Your task to perform on an android device: allow cookies in the chrome app Image 0: 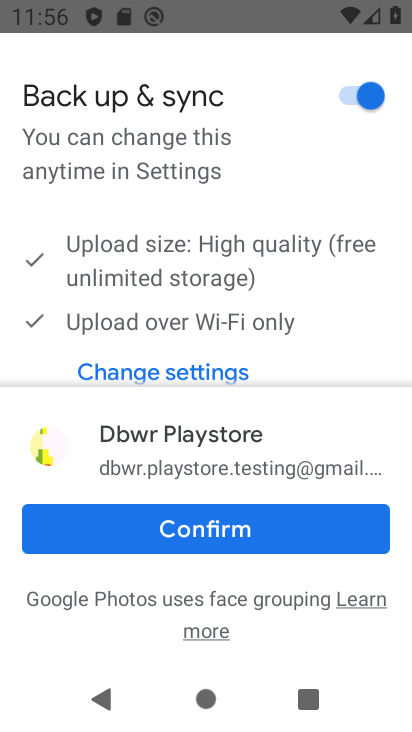
Step 0: press home button
Your task to perform on an android device: allow cookies in the chrome app Image 1: 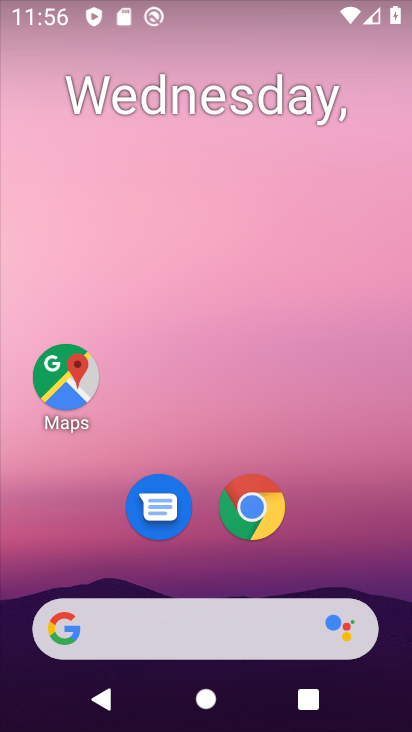
Step 1: click (259, 537)
Your task to perform on an android device: allow cookies in the chrome app Image 2: 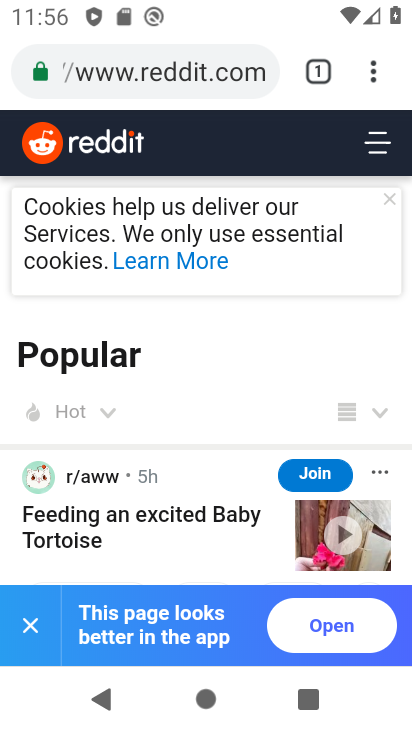
Step 2: click (370, 61)
Your task to perform on an android device: allow cookies in the chrome app Image 3: 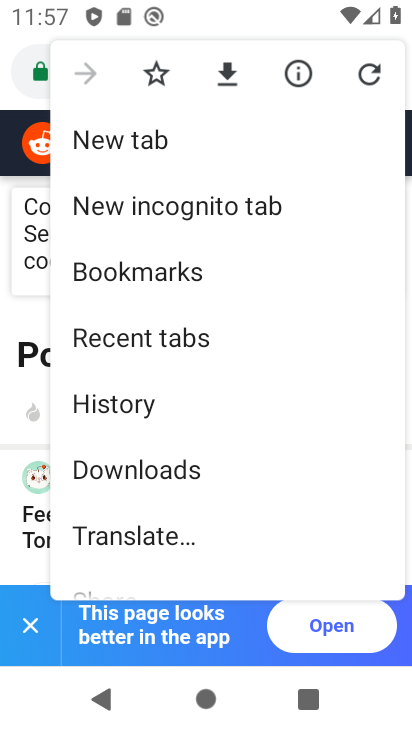
Step 3: drag from (242, 492) to (300, 206)
Your task to perform on an android device: allow cookies in the chrome app Image 4: 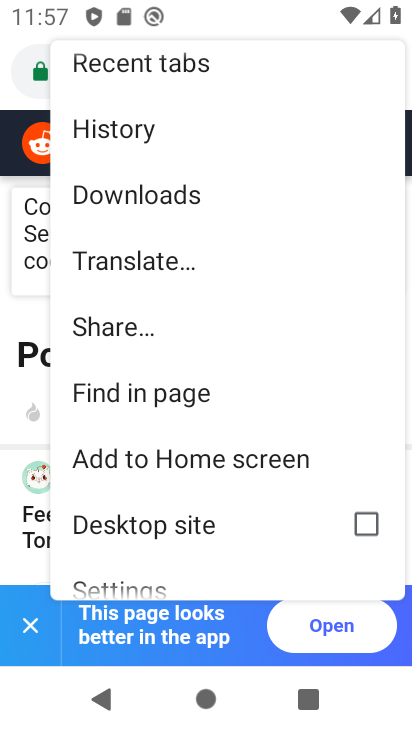
Step 4: drag from (192, 459) to (258, 207)
Your task to perform on an android device: allow cookies in the chrome app Image 5: 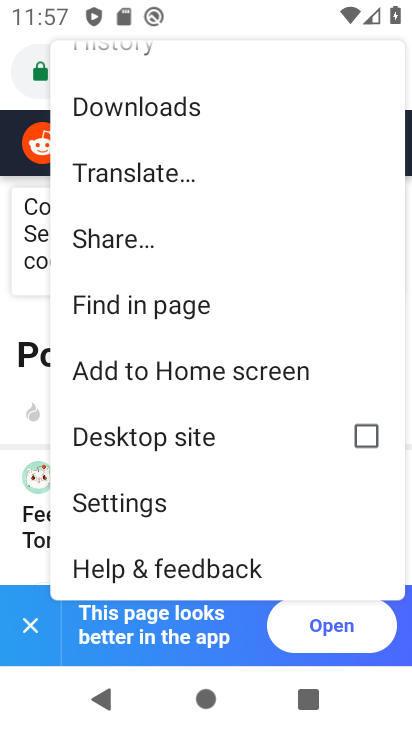
Step 5: click (139, 498)
Your task to perform on an android device: allow cookies in the chrome app Image 6: 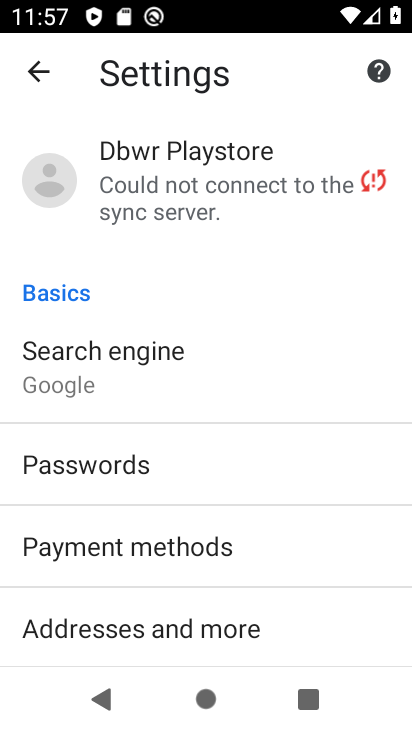
Step 6: drag from (198, 454) to (267, 212)
Your task to perform on an android device: allow cookies in the chrome app Image 7: 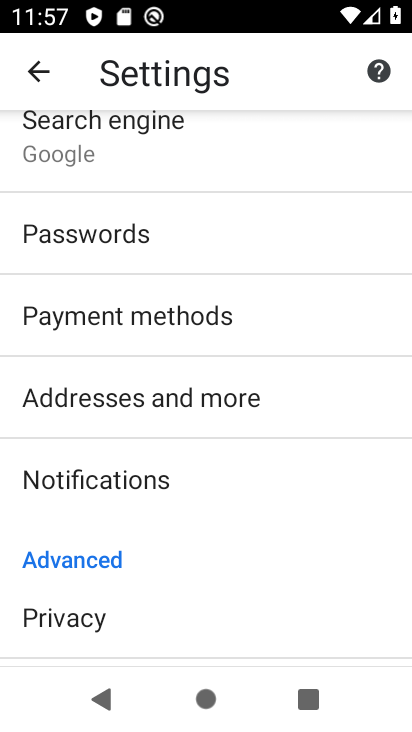
Step 7: drag from (204, 444) to (236, 282)
Your task to perform on an android device: allow cookies in the chrome app Image 8: 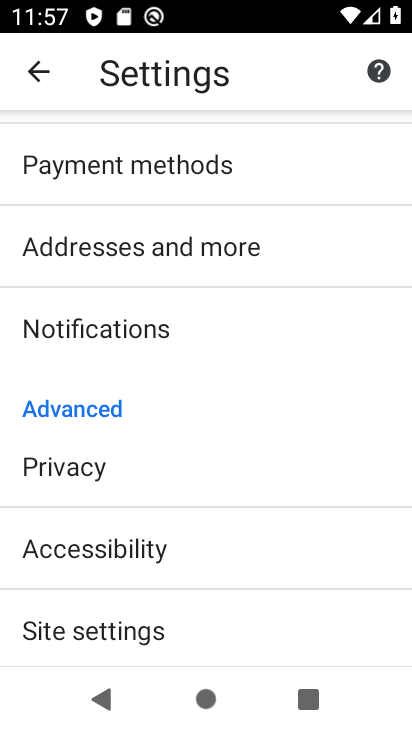
Step 8: drag from (180, 523) to (234, 219)
Your task to perform on an android device: allow cookies in the chrome app Image 9: 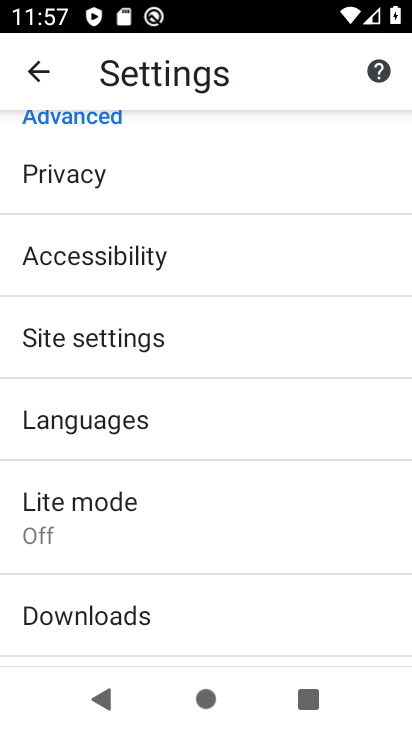
Step 9: click (176, 347)
Your task to perform on an android device: allow cookies in the chrome app Image 10: 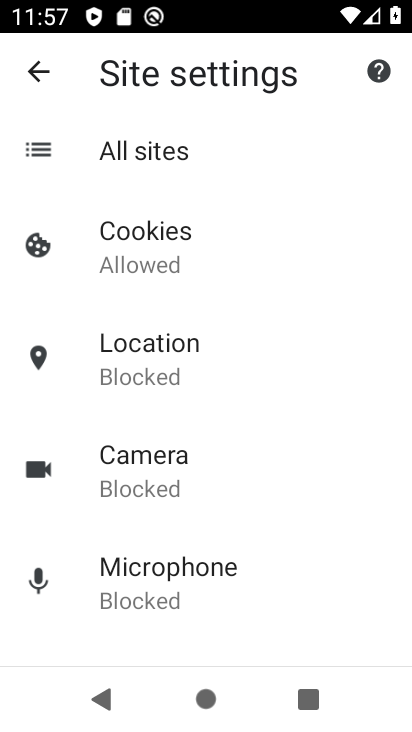
Step 10: click (221, 261)
Your task to perform on an android device: allow cookies in the chrome app Image 11: 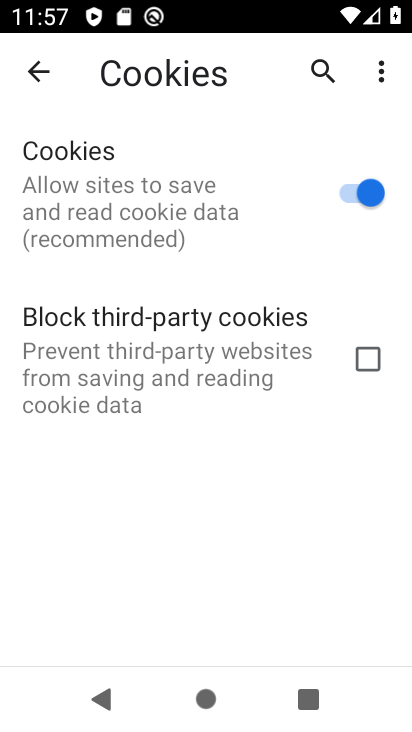
Step 11: task complete